Your task to perform on an android device: change the upload size in google photos Image 0: 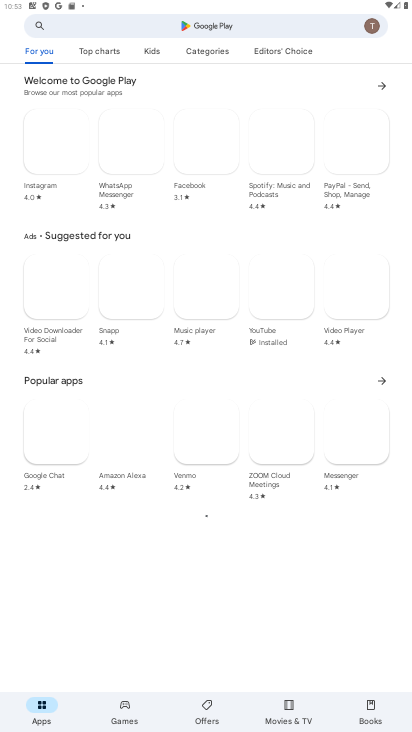
Step 0: press home button
Your task to perform on an android device: change the upload size in google photos Image 1: 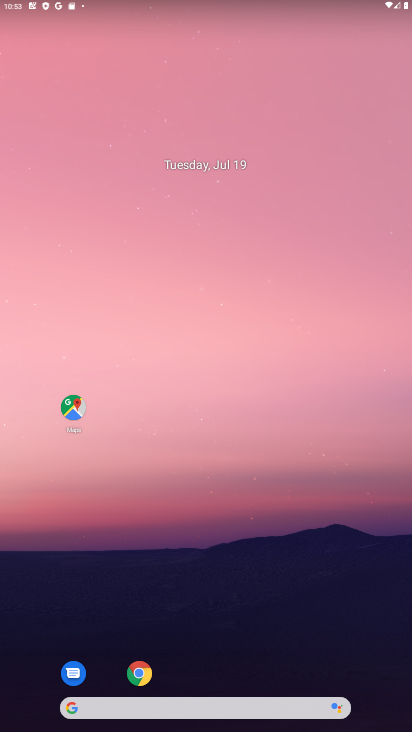
Step 1: drag from (390, 682) to (362, 320)
Your task to perform on an android device: change the upload size in google photos Image 2: 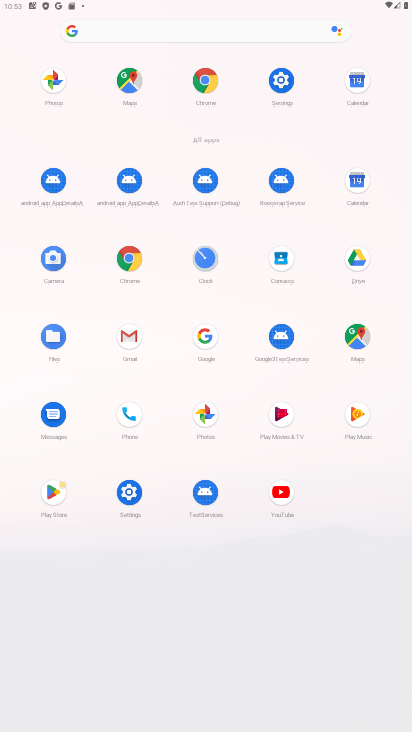
Step 2: click (205, 415)
Your task to perform on an android device: change the upload size in google photos Image 3: 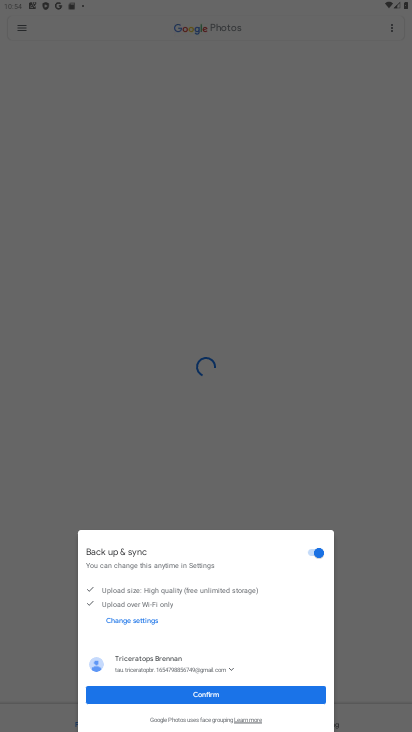
Step 3: click (205, 695)
Your task to perform on an android device: change the upload size in google photos Image 4: 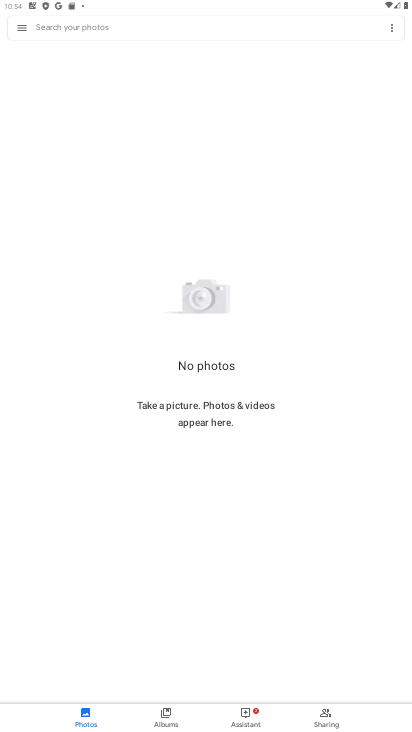
Step 4: click (19, 27)
Your task to perform on an android device: change the upload size in google photos Image 5: 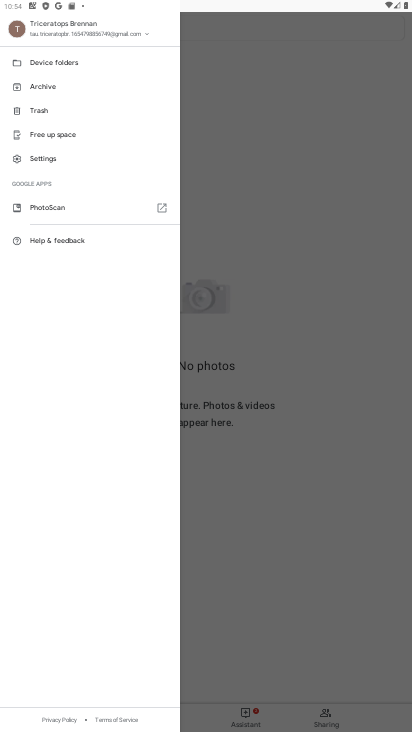
Step 5: click (38, 157)
Your task to perform on an android device: change the upload size in google photos Image 6: 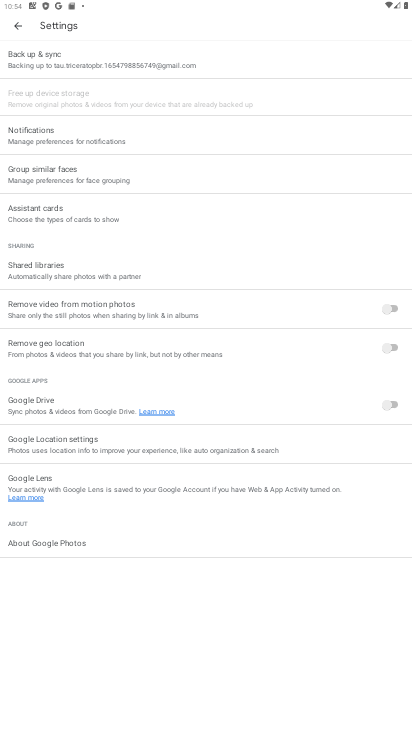
Step 6: click (47, 59)
Your task to perform on an android device: change the upload size in google photos Image 7: 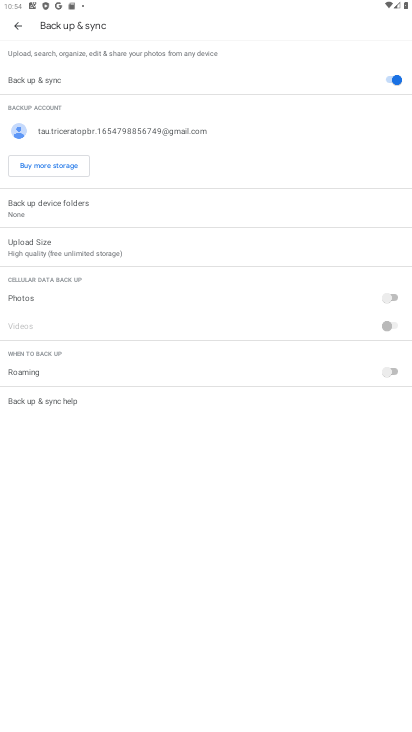
Step 7: click (30, 249)
Your task to perform on an android device: change the upload size in google photos Image 8: 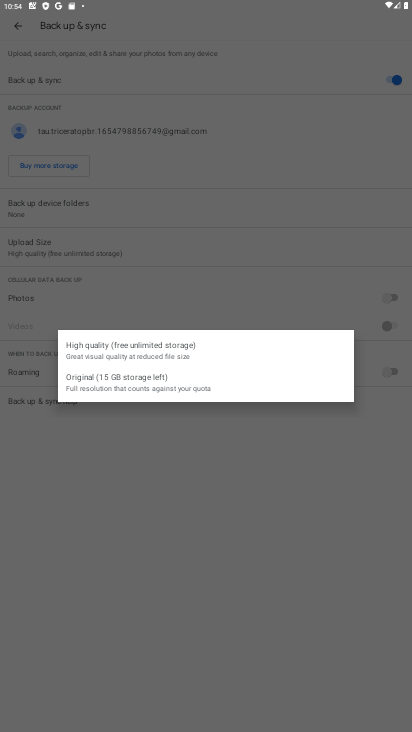
Step 8: click (124, 379)
Your task to perform on an android device: change the upload size in google photos Image 9: 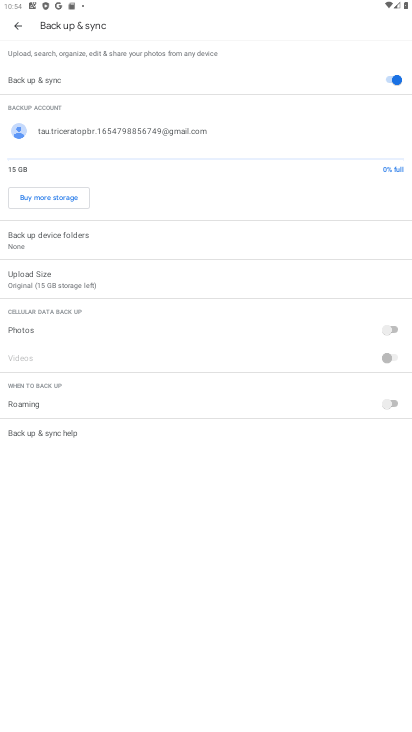
Step 9: task complete